Your task to perform on an android device: turn off picture-in-picture Image 0: 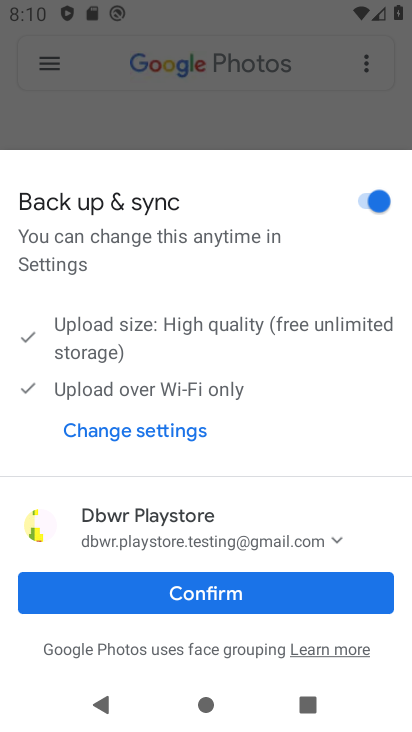
Step 0: press home button
Your task to perform on an android device: turn off picture-in-picture Image 1: 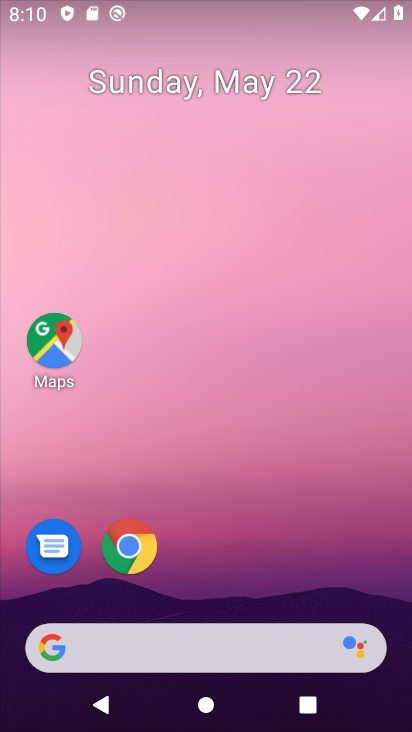
Step 1: click (127, 535)
Your task to perform on an android device: turn off picture-in-picture Image 2: 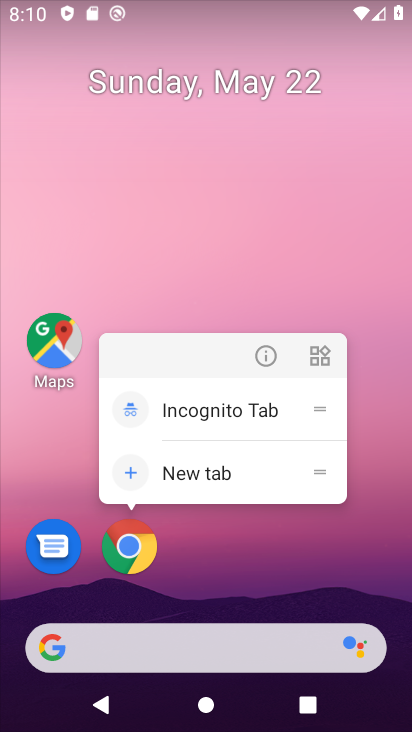
Step 2: click (273, 351)
Your task to perform on an android device: turn off picture-in-picture Image 3: 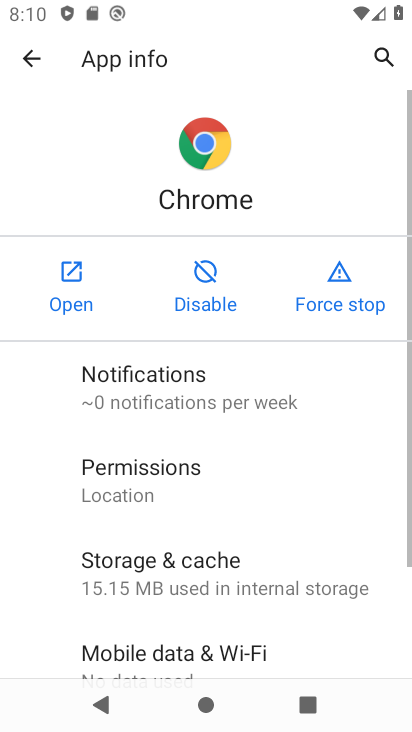
Step 3: drag from (281, 555) to (286, 201)
Your task to perform on an android device: turn off picture-in-picture Image 4: 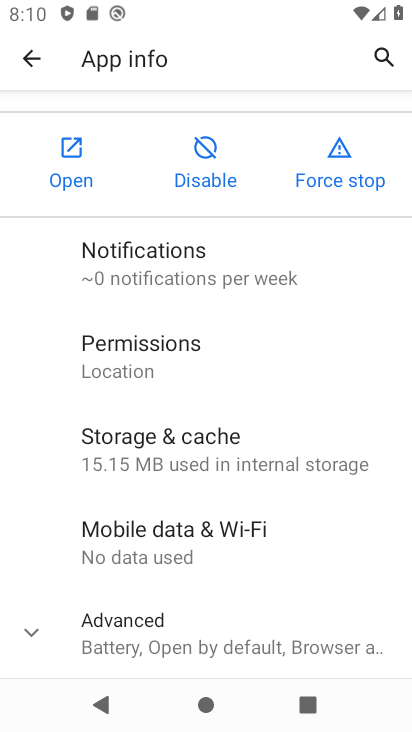
Step 4: drag from (222, 500) to (235, 307)
Your task to perform on an android device: turn off picture-in-picture Image 5: 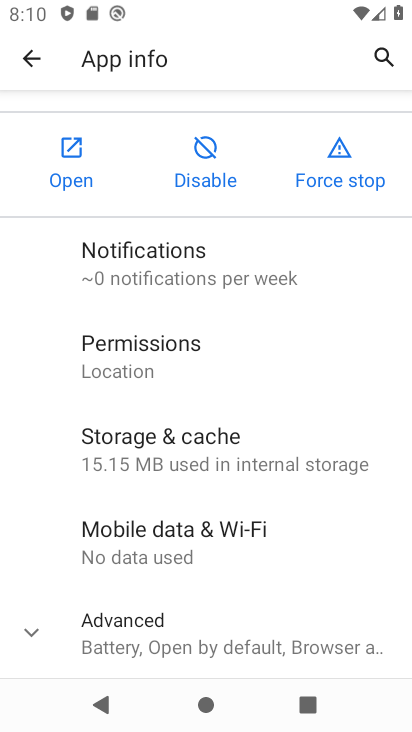
Step 5: click (115, 621)
Your task to perform on an android device: turn off picture-in-picture Image 6: 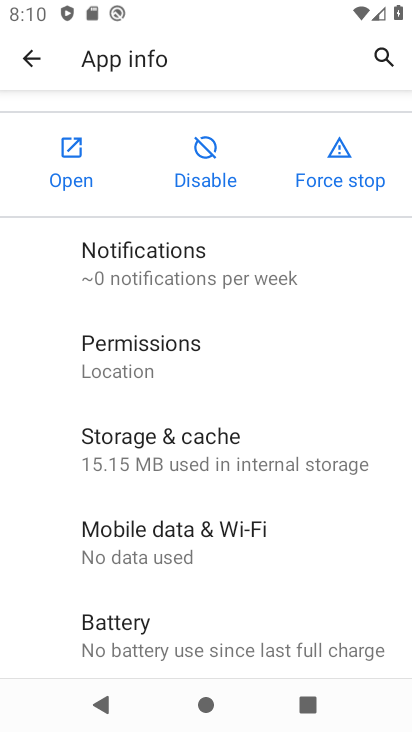
Step 6: drag from (201, 583) to (260, 240)
Your task to perform on an android device: turn off picture-in-picture Image 7: 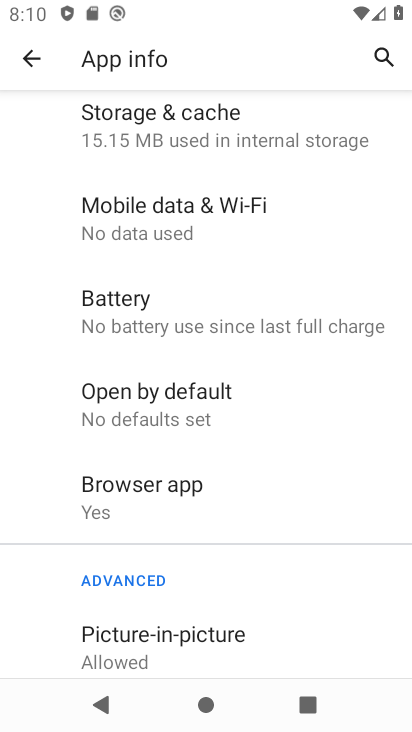
Step 7: drag from (170, 627) to (200, 348)
Your task to perform on an android device: turn off picture-in-picture Image 8: 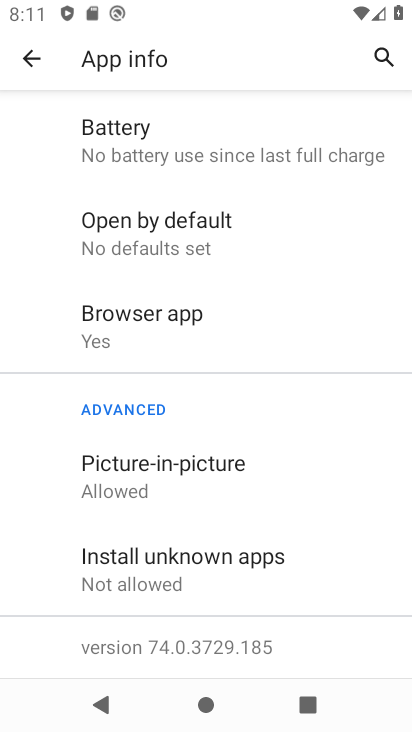
Step 8: click (141, 483)
Your task to perform on an android device: turn off picture-in-picture Image 9: 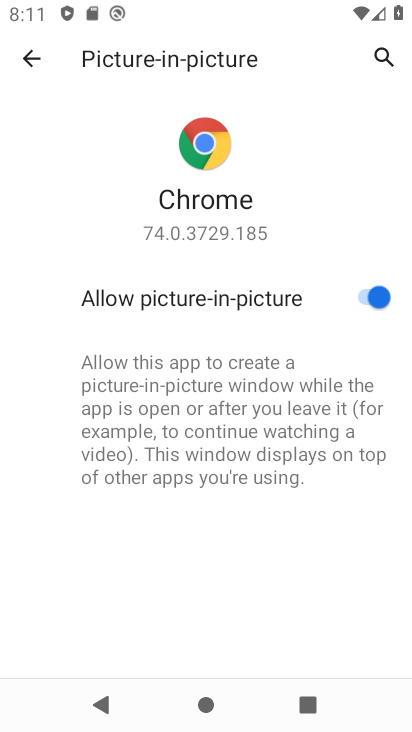
Step 9: click (346, 294)
Your task to perform on an android device: turn off picture-in-picture Image 10: 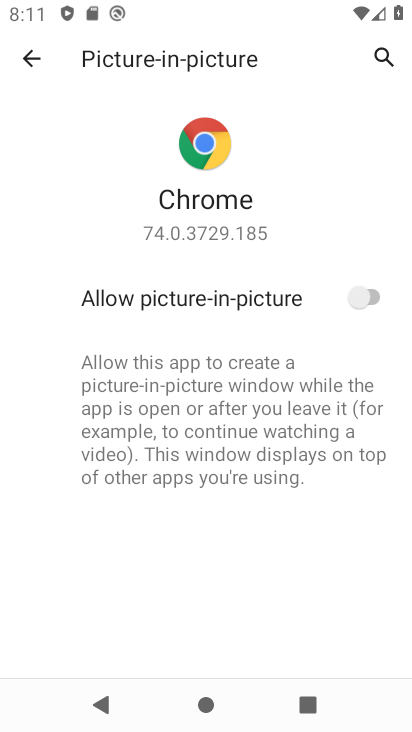
Step 10: task complete